Your task to perform on an android device: Open eBay Image 0: 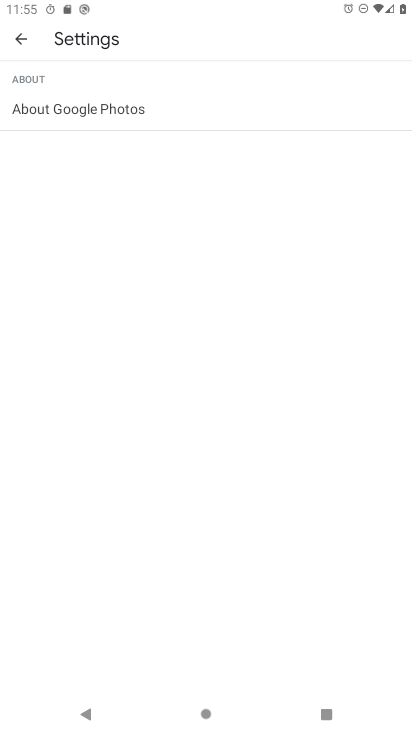
Step 0: press home button
Your task to perform on an android device: Open eBay Image 1: 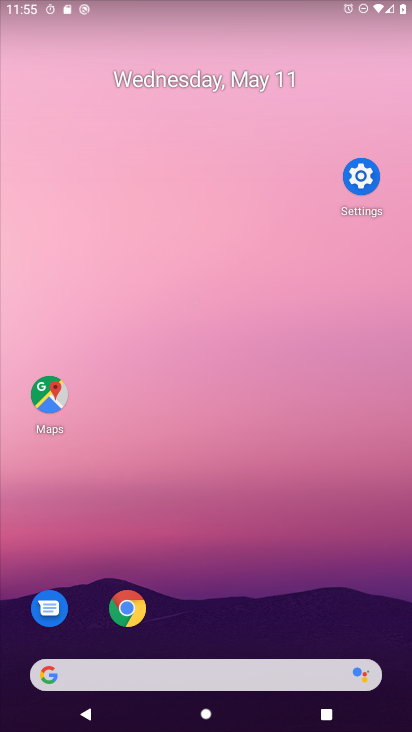
Step 1: drag from (322, 644) to (54, 103)
Your task to perform on an android device: Open eBay Image 2: 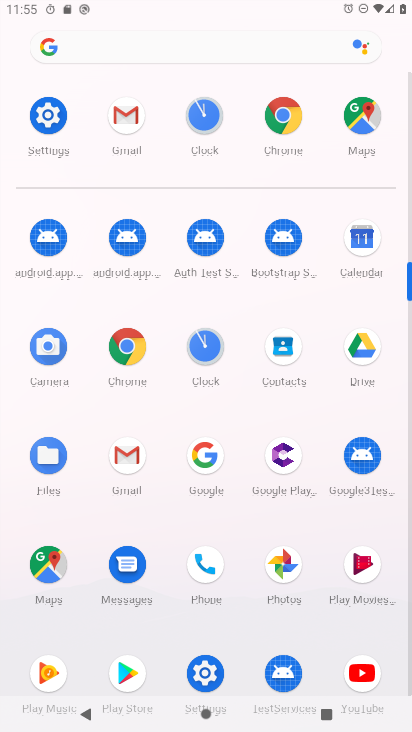
Step 2: click (283, 119)
Your task to perform on an android device: Open eBay Image 3: 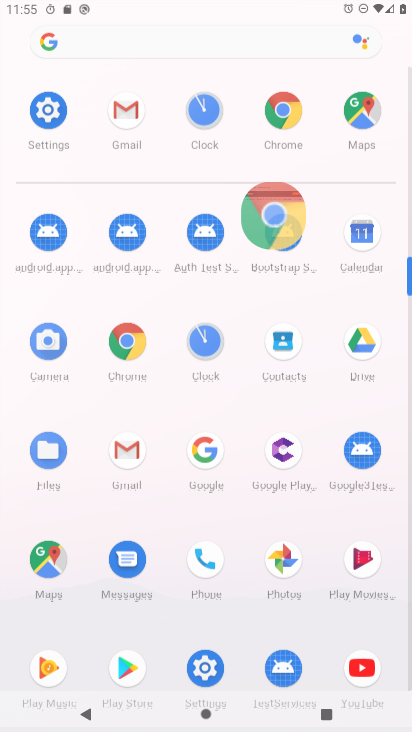
Step 3: click (283, 119)
Your task to perform on an android device: Open eBay Image 4: 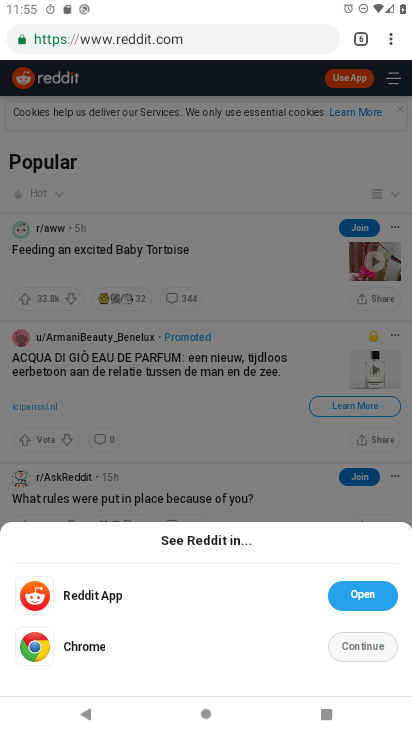
Step 4: click (385, 37)
Your task to perform on an android device: Open eBay Image 5: 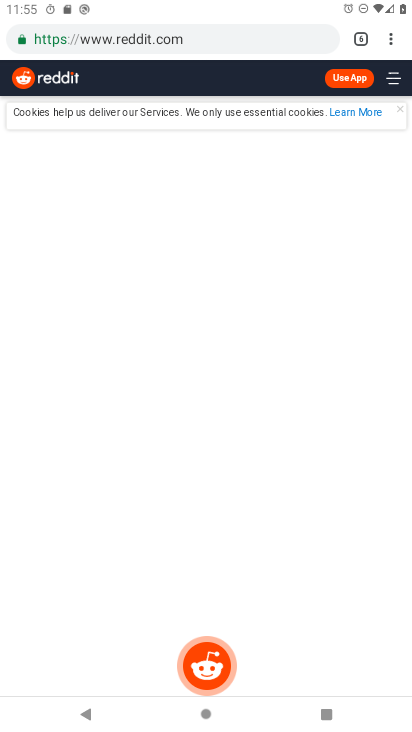
Step 5: click (384, 36)
Your task to perform on an android device: Open eBay Image 6: 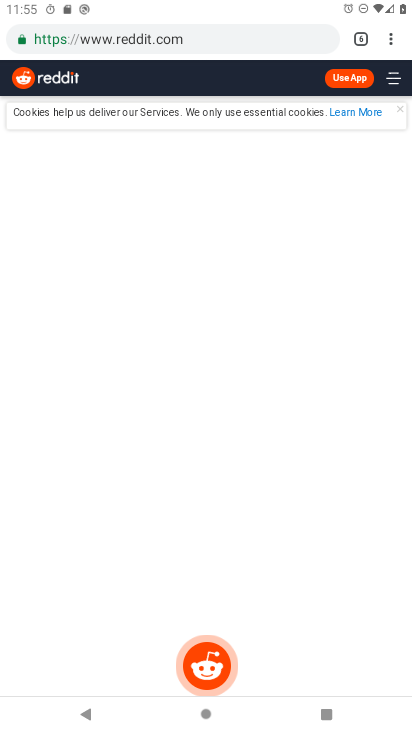
Step 6: click (384, 36)
Your task to perform on an android device: Open eBay Image 7: 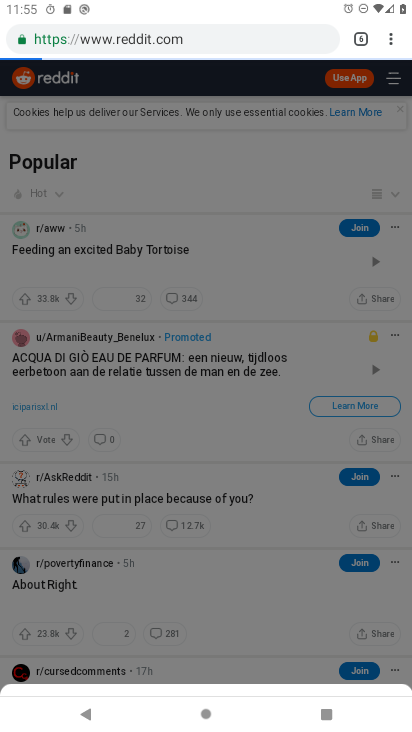
Step 7: click (384, 36)
Your task to perform on an android device: Open eBay Image 8: 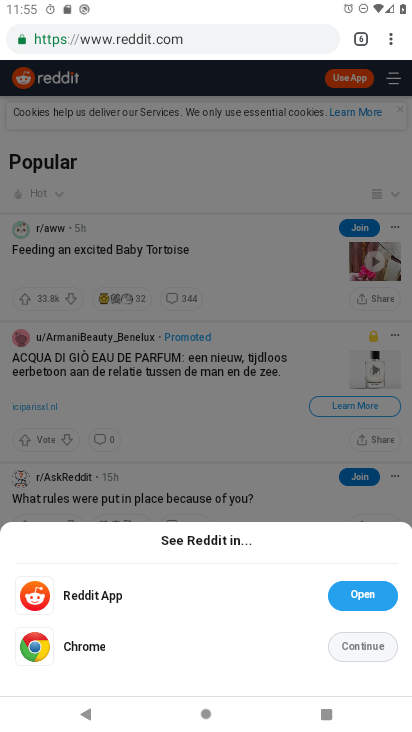
Step 8: click (384, 36)
Your task to perform on an android device: Open eBay Image 9: 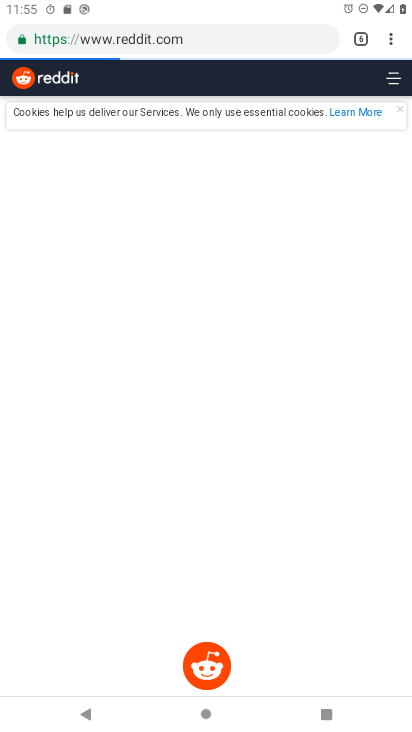
Step 9: drag from (384, 36) to (265, 83)
Your task to perform on an android device: Open eBay Image 10: 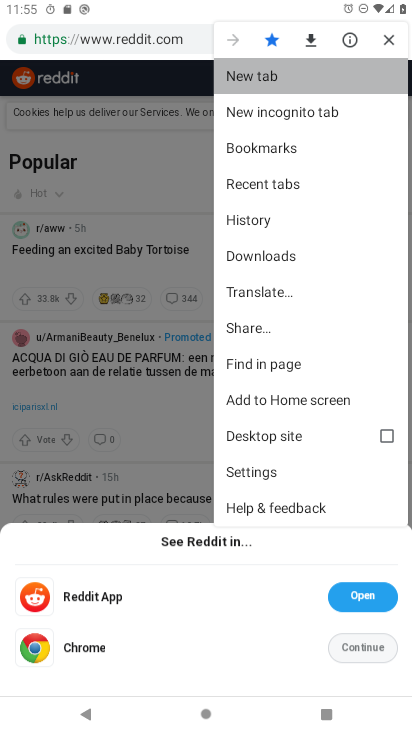
Step 10: click (265, 83)
Your task to perform on an android device: Open eBay Image 11: 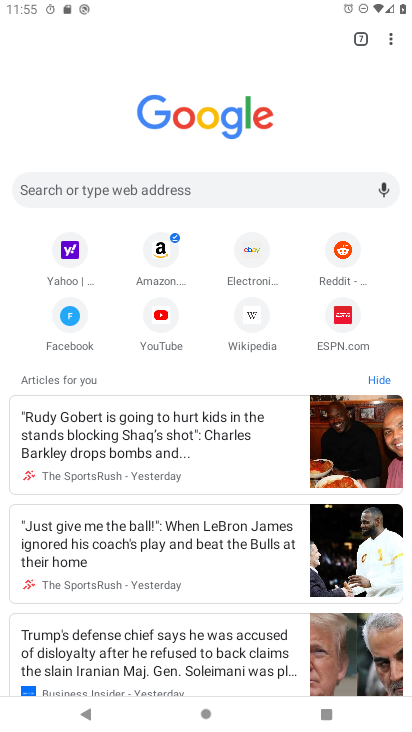
Step 11: click (45, 185)
Your task to perform on an android device: Open eBay Image 12: 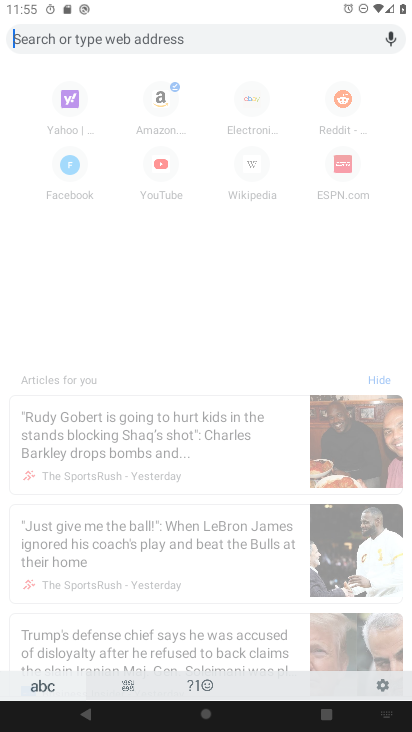
Step 12: click (44, 184)
Your task to perform on an android device: Open eBay Image 13: 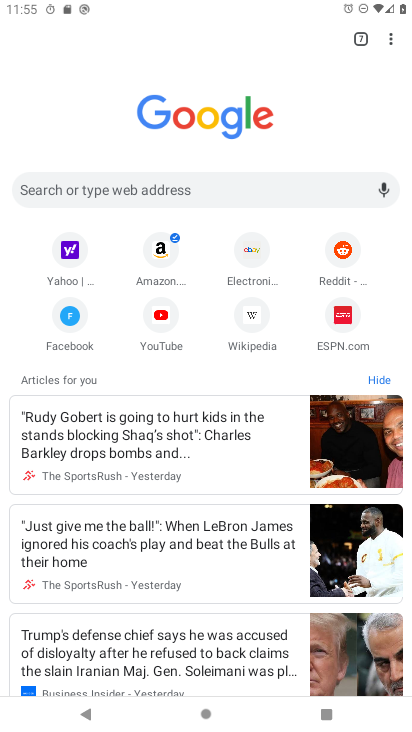
Step 13: click (98, 187)
Your task to perform on an android device: Open eBay Image 14: 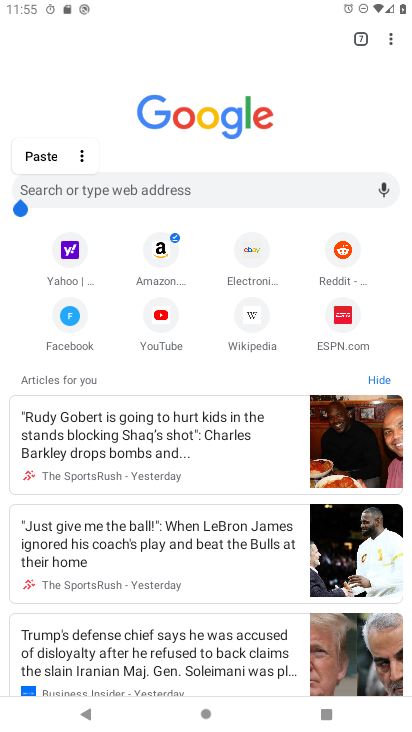
Step 14: click (256, 255)
Your task to perform on an android device: Open eBay Image 15: 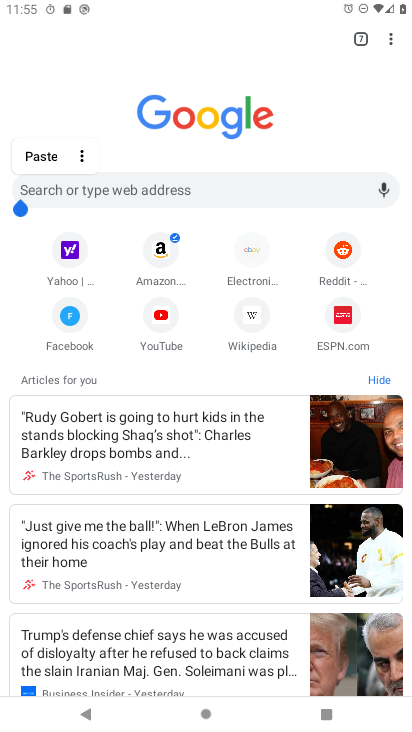
Step 15: click (256, 255)
Your task to perform on an android device: Open eBay Image 16: 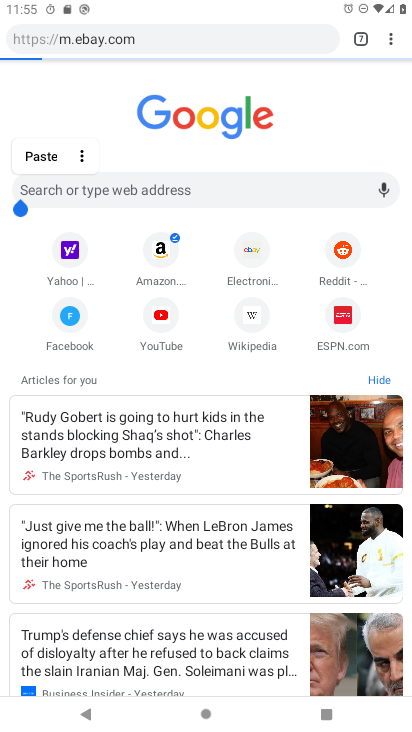
Step 16: click (256, 255)
Your task to perform on an android device: Open eBay Image 17: 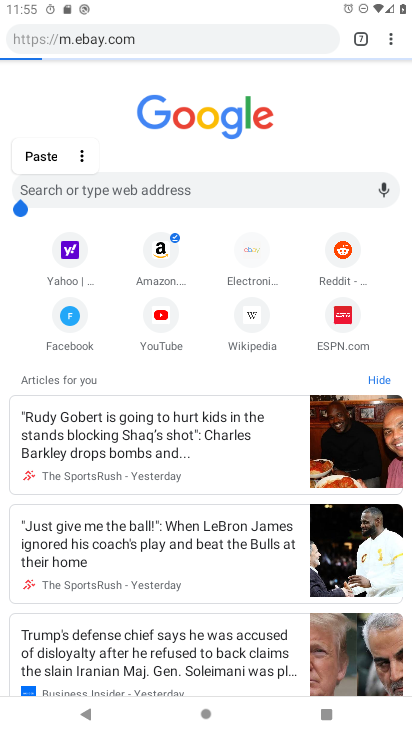
Step 17: click (256, 255)
Your task to perform on an android device: Open eBay Image 18: 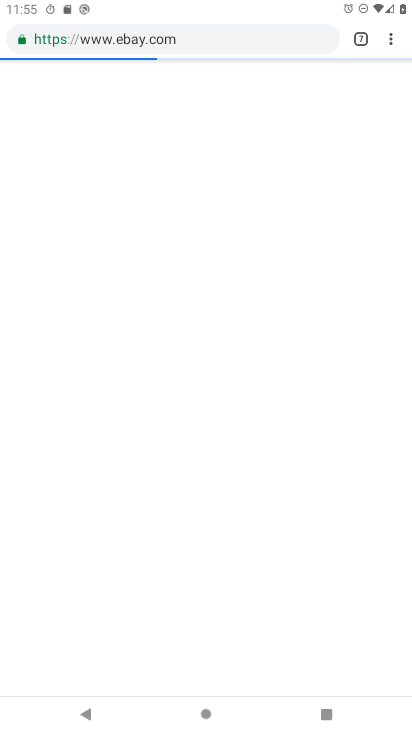
Step 18: click (256, 255)
Your task to perform on an android device: Open eBay Image 19: 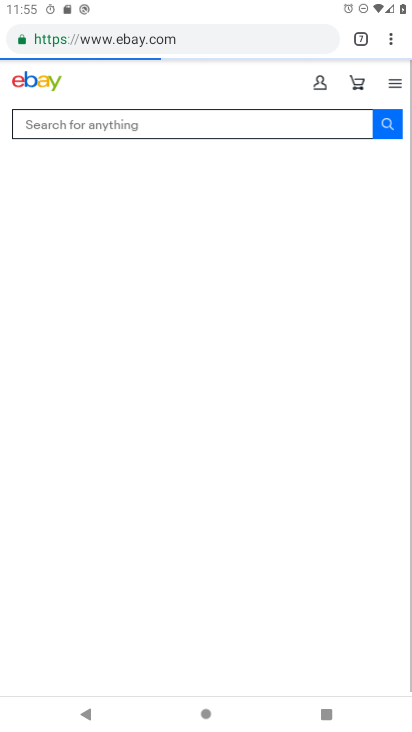
Step 19: click (256, 255)
Your task to perform on an android device: Open eBay Image 20: 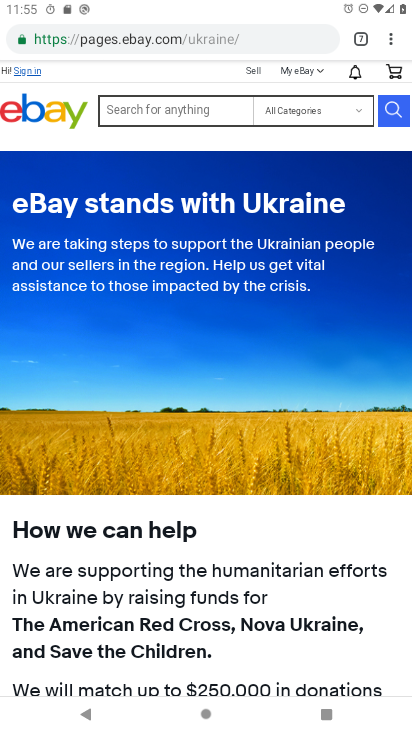
Step 20: task complete